Your task to perform on an android device: turn off location history Image 0: 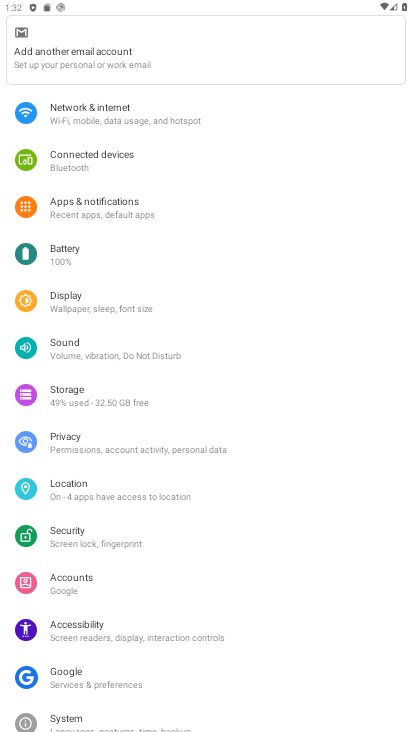
Step 0: press home button
Your task to perform on an android device: turn off location history Image 1: 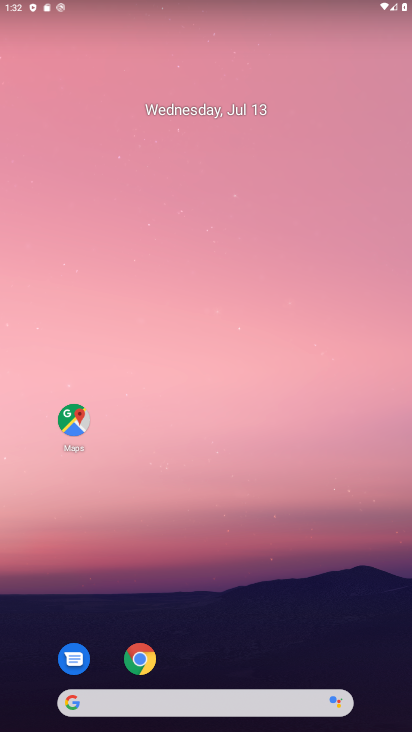
Step 1: click (73, 418)
Your task to perform on an android device: turn off location history Image 2: 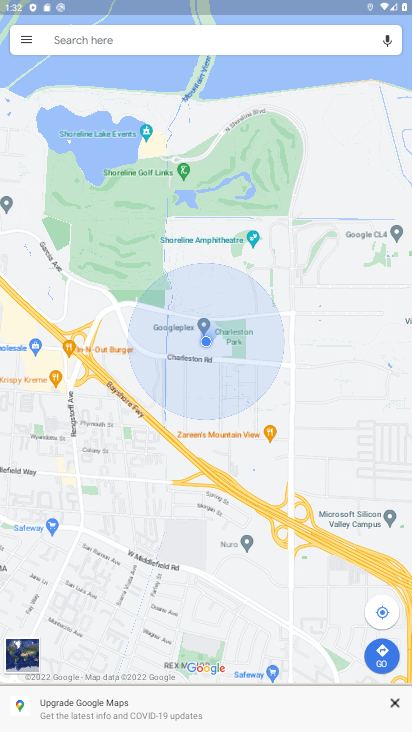
Step 2: click (29, 40)
Your task to perform on an android device: turn off location history Image 3: 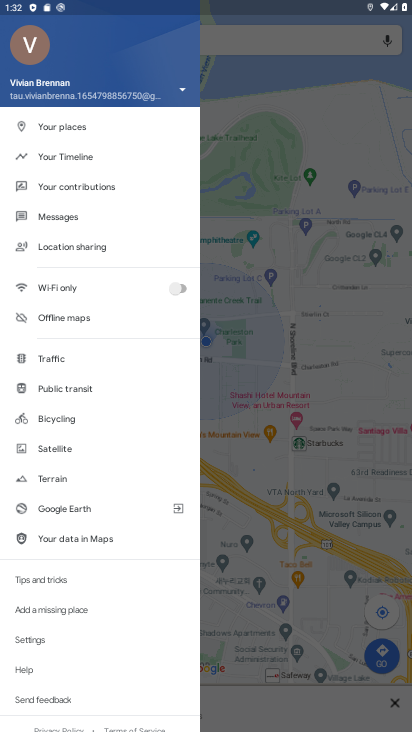
Step 3: click (29, 636)
Your task to perform on an android device: turn off location history Image 4: 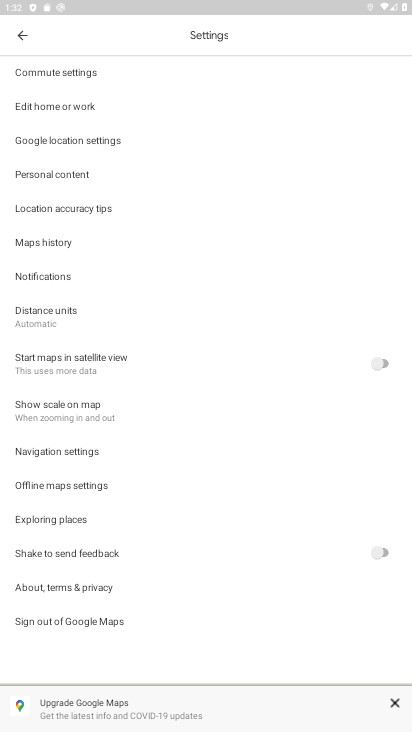
Step 4: click (47, 173)
Your task to perform on an android device: turn off location history Image 5: 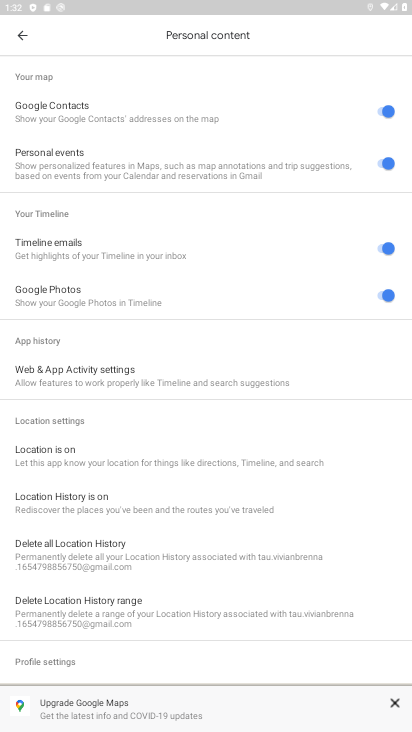
Step 5: click (39, 495)
Your task to perform on an android device: turn off location history Image 6: 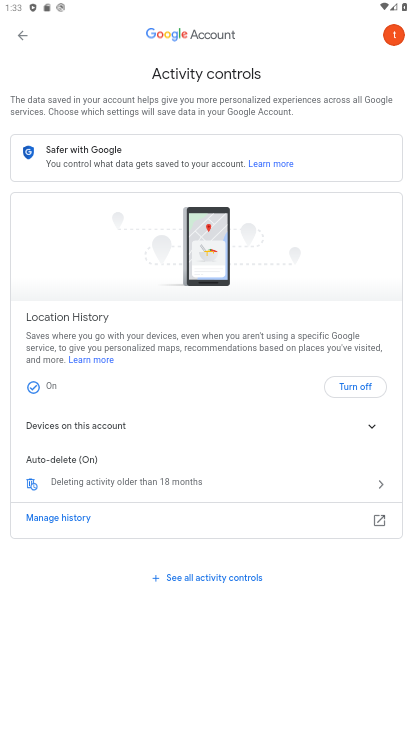
Step 6: click (359, 381)
Your task to perform on an android device: turn off location history Image 7: 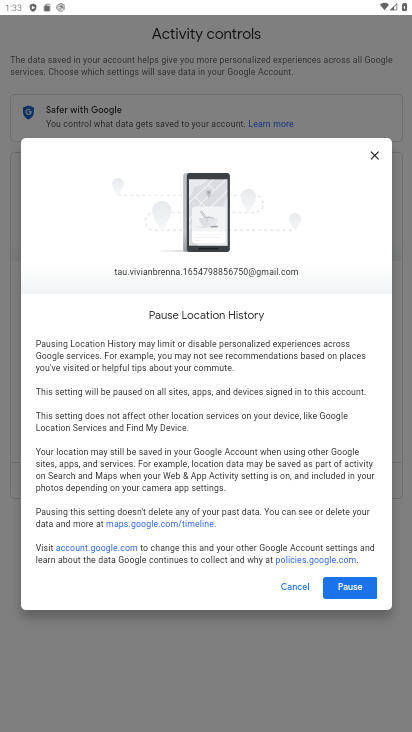
Step 7: click (347, 589)
Your task to perform on an android device: turn off location history Image 8: 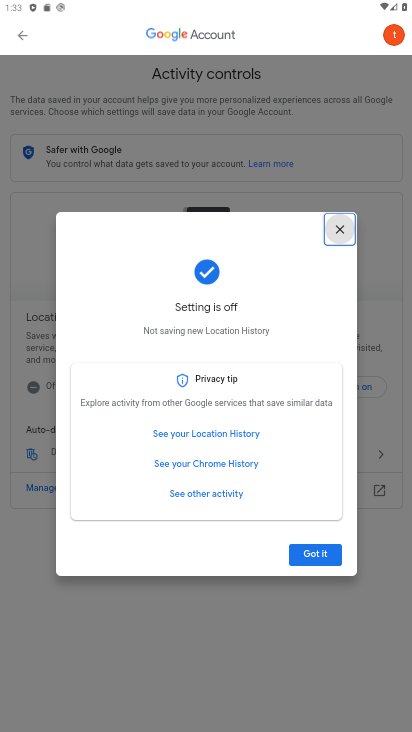
Step 8: click (310, 550)
Your task to perform on an android device: turn off location history Image 9: 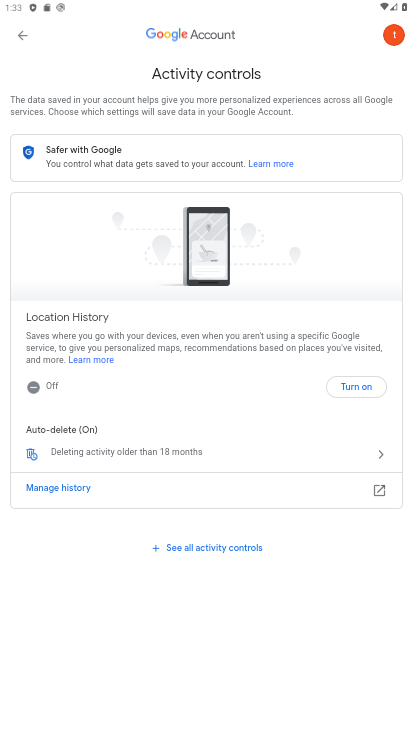
Step 9: task complete